Your task to perform on an android device: Open Google Maps Image 0: 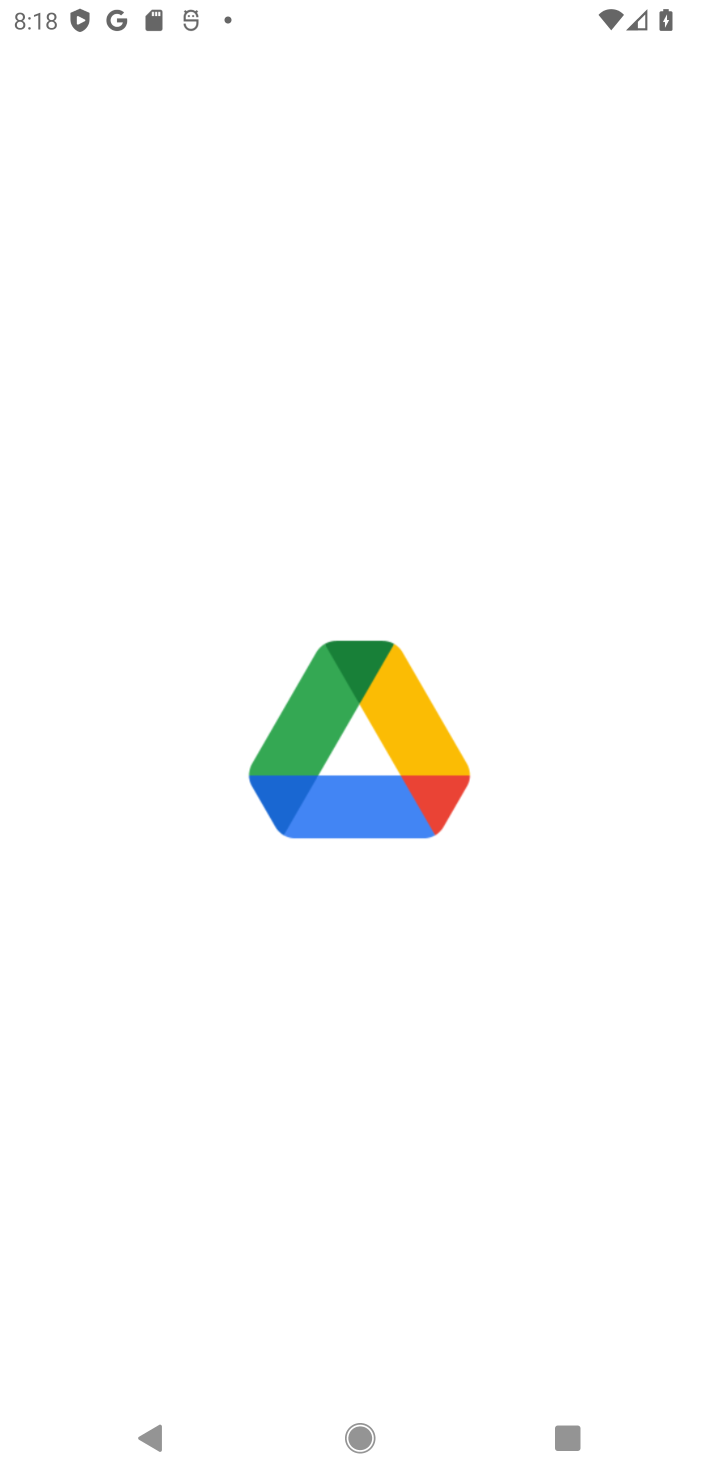
Step 0: press home button
Your task to perform on an android device: Open Google Maps Image 1: 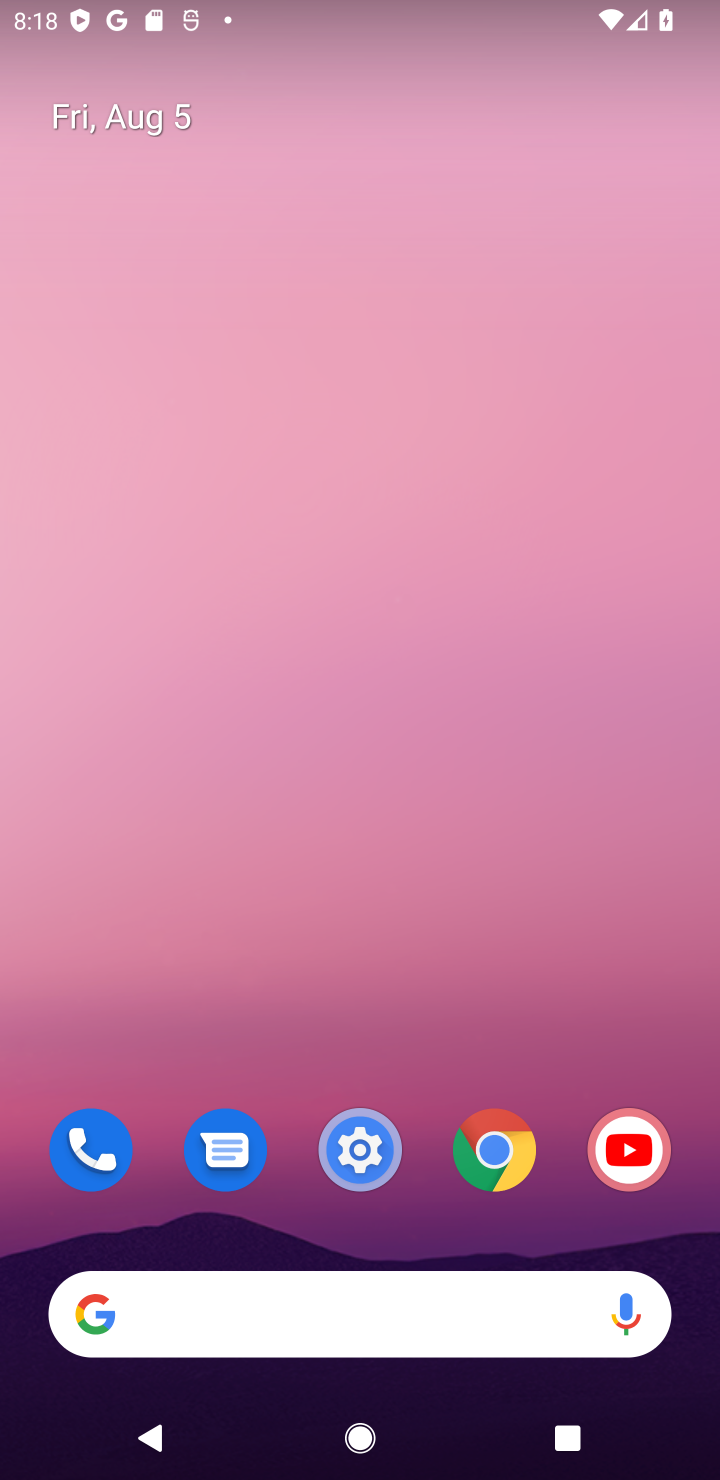
Step 1: drag from (392, 1020) to (417, 346)
Your task to perform on an android device: Open Google Maps Image 2: 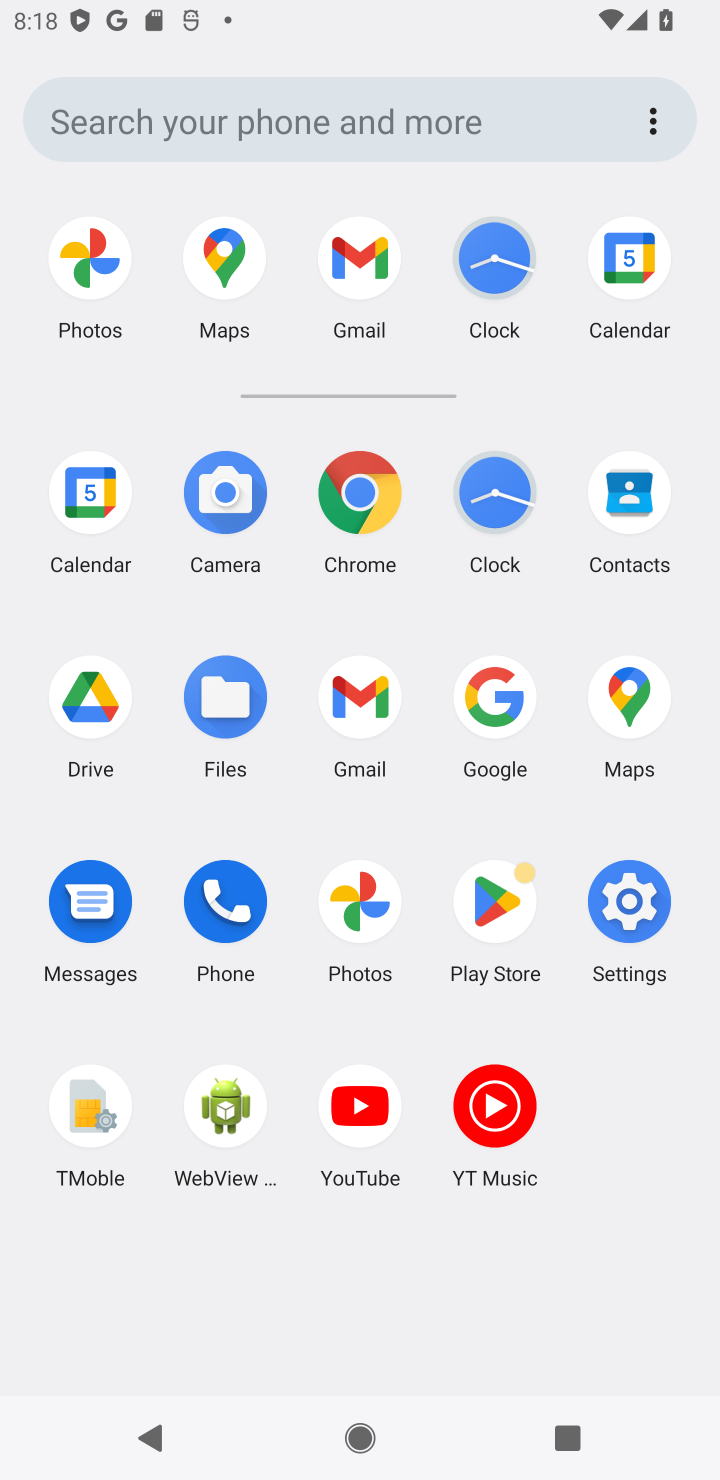
Step 2: click (633, 686)
Your task to perform on an android device: Open Google Maps Image 3: 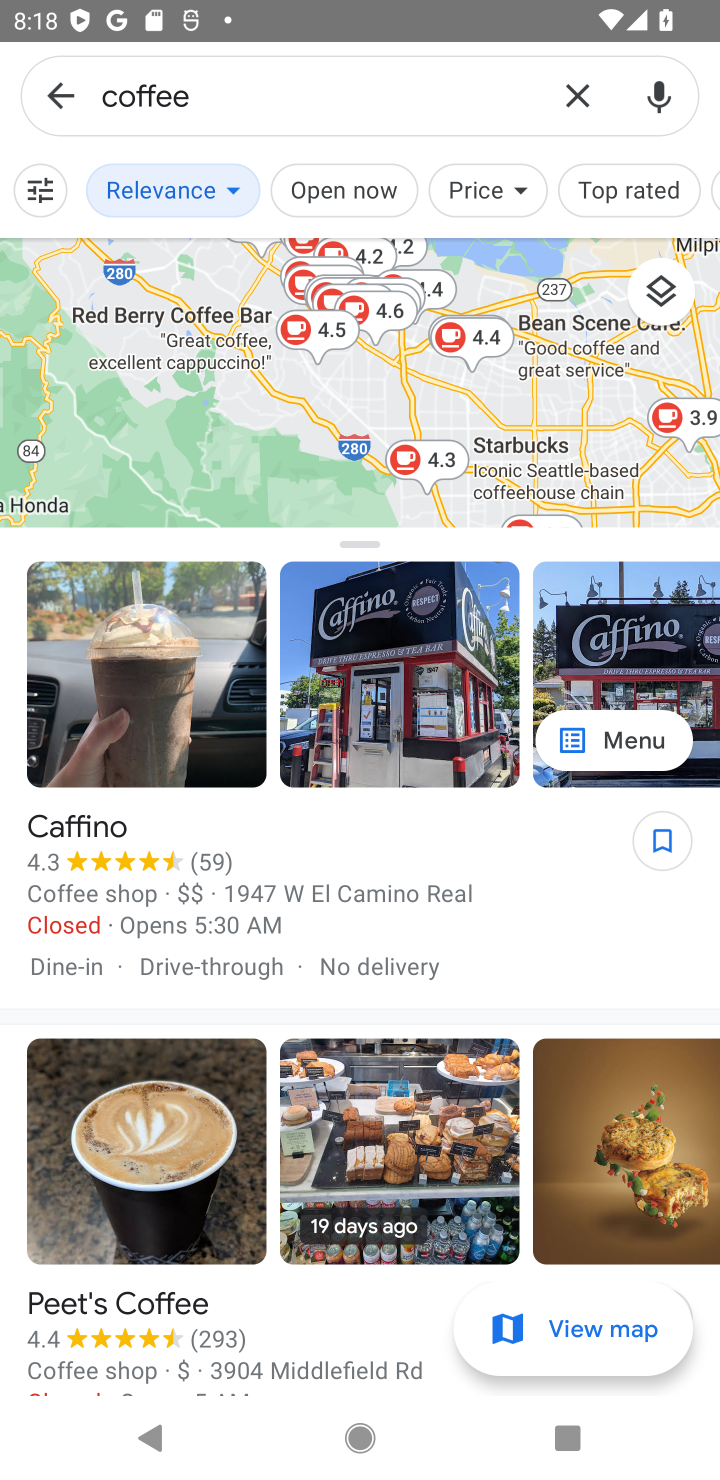
Step 3: task complete